Your task to perform on an android device: Go to calendar. Show me events next week Image 0: 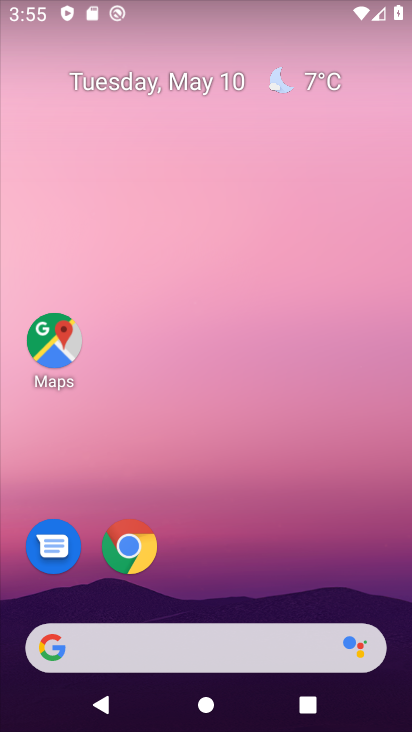
Step 0: click (274, 686)
Your task to perform on an android device: Go to calendar. Show me events next week Image 1: 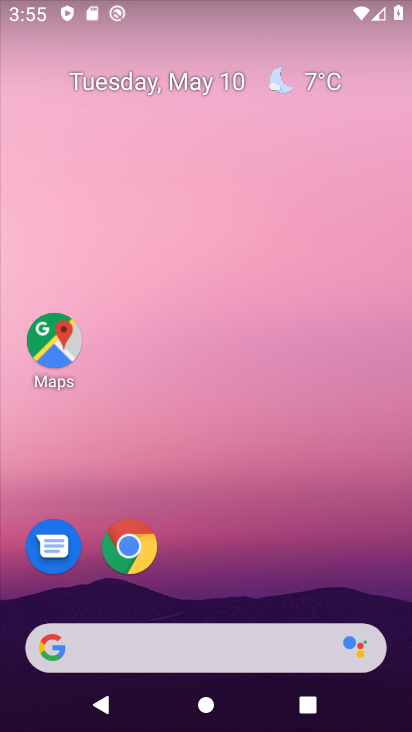
Step 1: drag from (238, 377) to (200, 146)
Your task to perform on an android device: Go to calendar. Show me events next week Image 2: 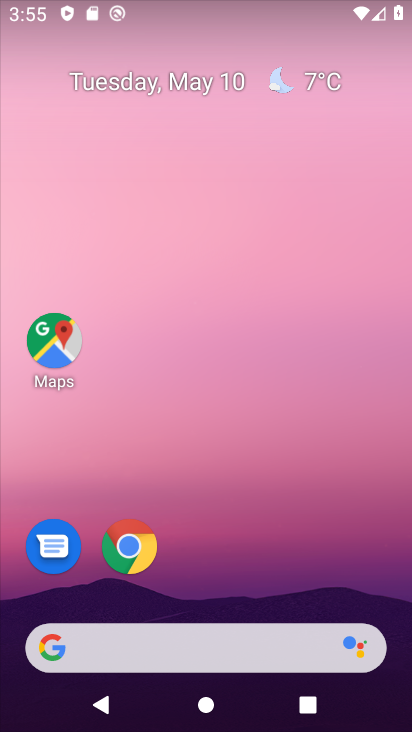
Step 2: drag from (310, 543) to (167, 0)
Your task to perform on an android device: Go to calendar. Show me events next week Image 3: 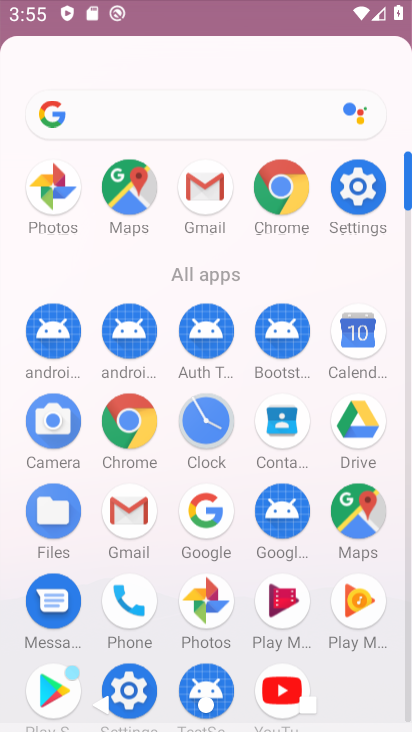
Step 3: drag from (280, 327) to (182, 0)
Your task to perform on an android device: Go to calendar. Show me events next week Image 4: 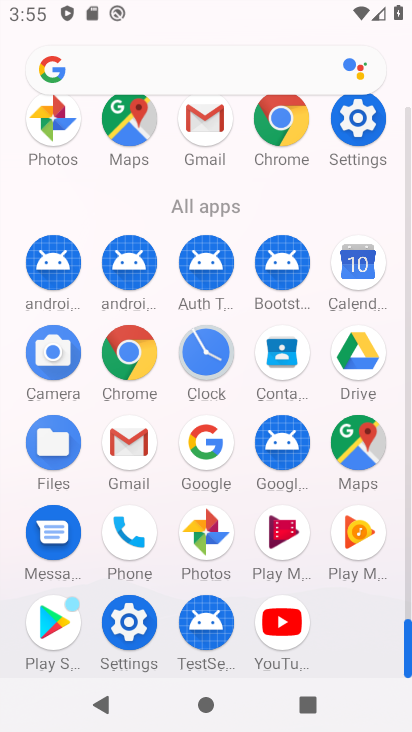
Step 4: click (360, 269)
Your task to perform on an android device: Go to calendar. Show me events next week Image 5: 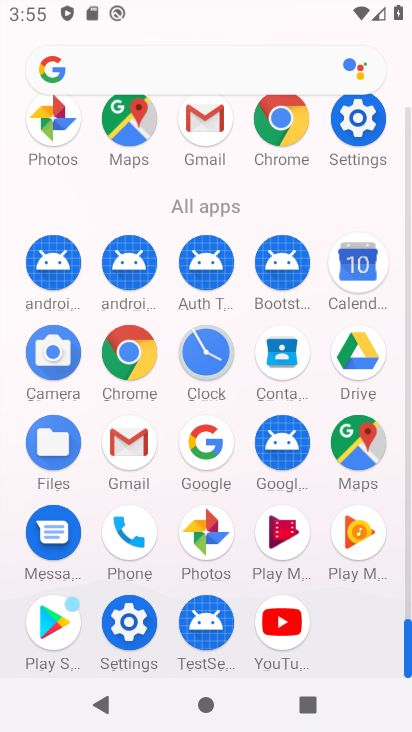
Step 5: click (361, 270)
Your task to perform on an android device: Go to calendar. Show me events next week Image 6: 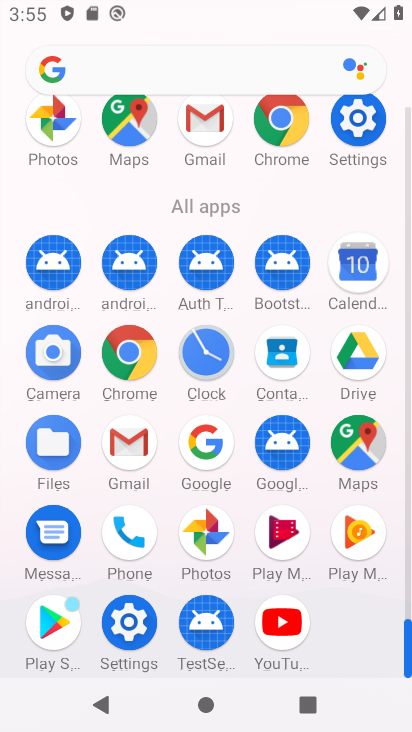
Step 6: click (361, 270)
Your task to perform on an android device: Go to calendar. Show me events next week Image 7: 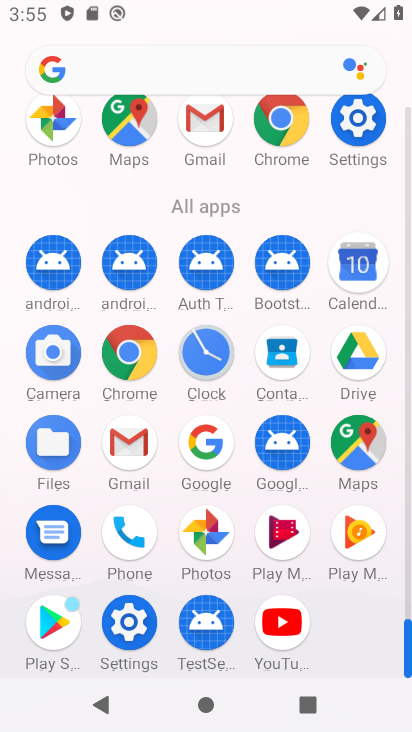
Step 7: click (361, 270)
Your task to perform on an android device: Go to calendar. Show me events next week Image 8: 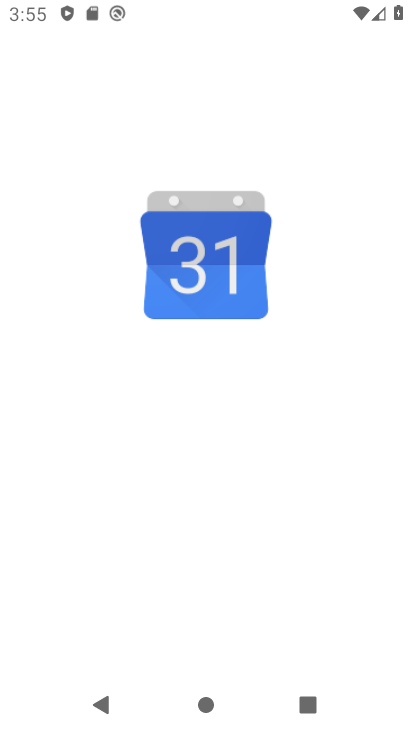
Step 8: click (361, 270)
Your task to perform on an android device: Go to calendar. Show me events next week Image 9: 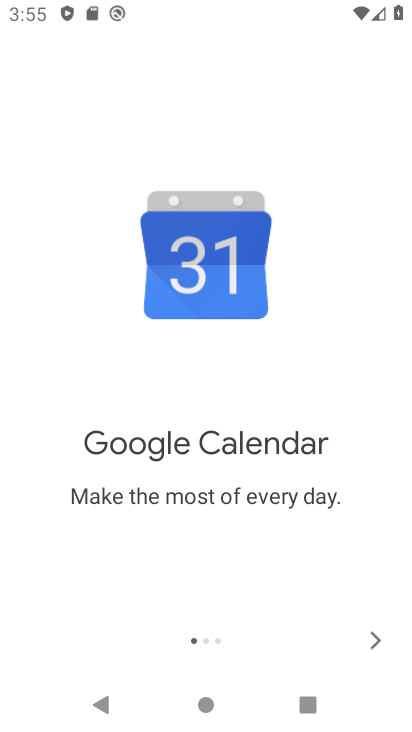
Step 9: click (384, 633)
Your task to perform on an android device: Go to calendar. Show me events next week Image 10: 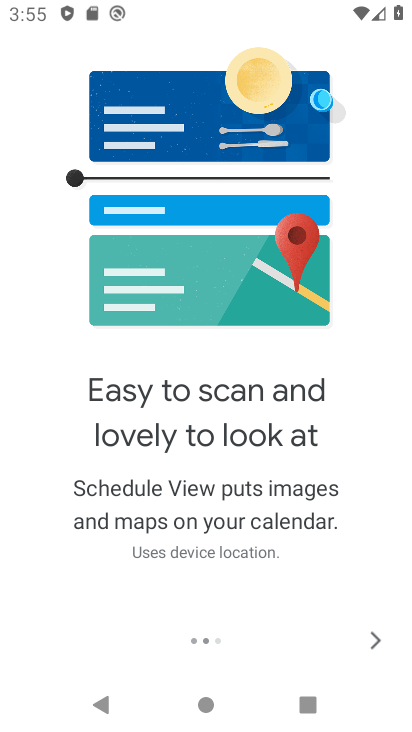
Step 10: click (377, 646)
Your task to perform on an android device: Go to calendar. Show me events next week Image 11: 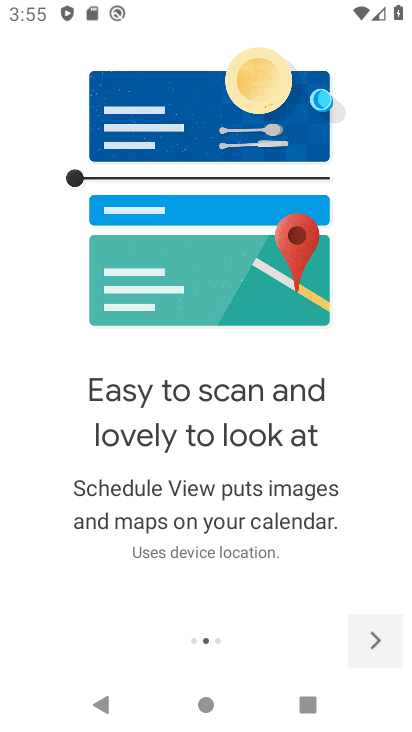
Step 11: click (375, 648)
Your task to perform on an android device: Go to calendar. Show me events next week Image 12: 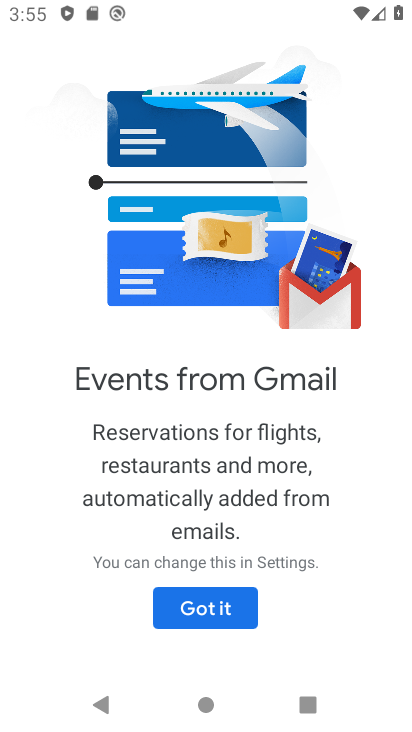
Step 12: click (192, 602)
Your task to perform on an android device: Go to calendar. Show me events next week Image 13: 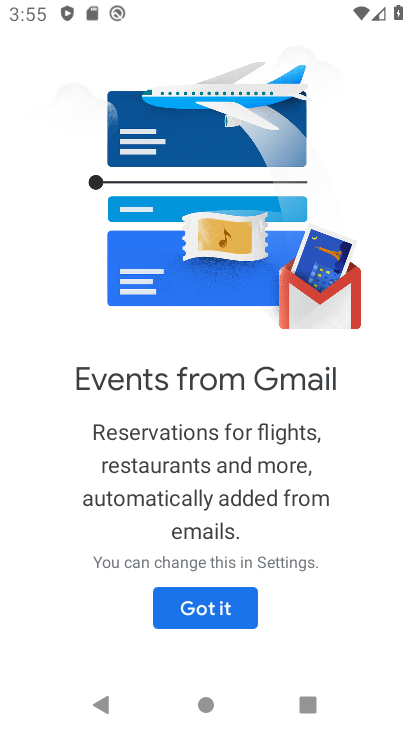
Step 13: click (193, 602)
Your task to perform on an android device: Go to calendar. Show me events next week Image 14: 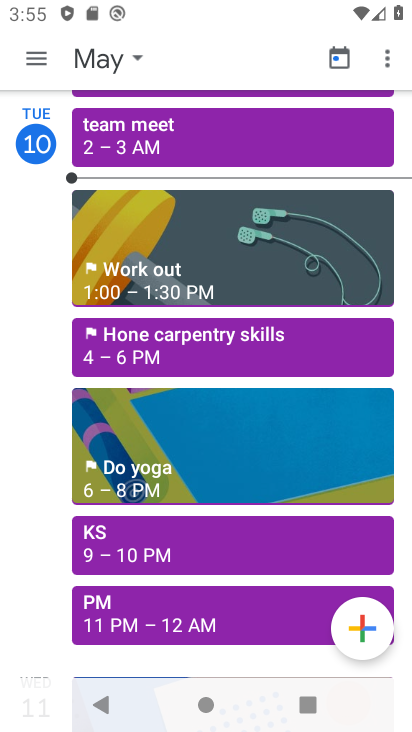
Step 14: drag from (165, 418) to (121, 16)
Your task to perform on an android device: Go to calendar. Show me events next week Image 15: 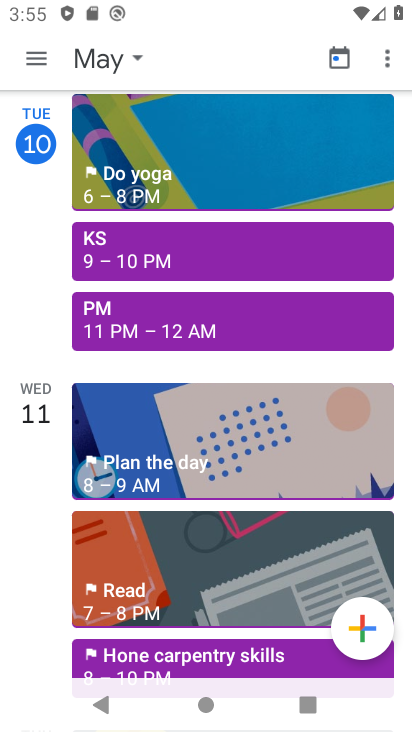
Step 15: drag from (111, 308) to (64, 111)
Your task to perform on an android device: Go to calendar. Show me events next week Image 16: 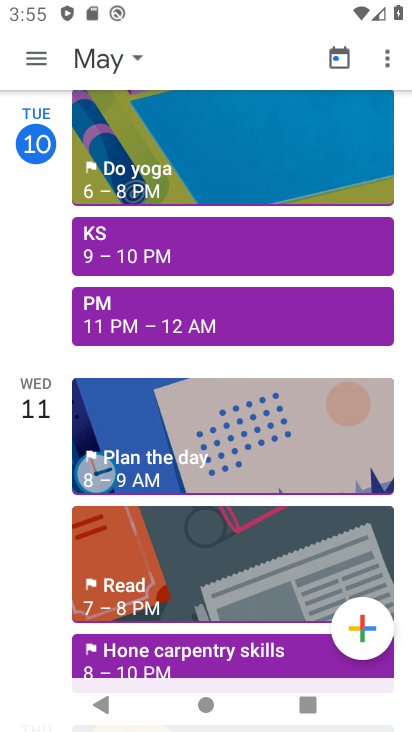
Step 16: click (88, 423)
Your task to perform on an android device: Go to calendar. Show me events next week Image 17: 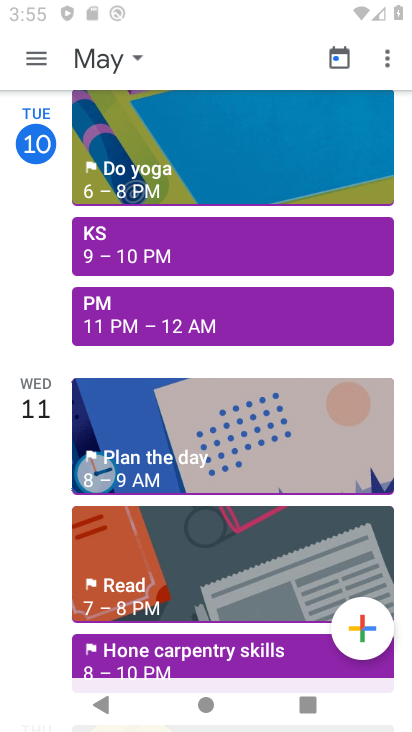
Step 17: click (88, 423)
Your task to perform on an android device: Go to calendar. Show me events next week Image 18: 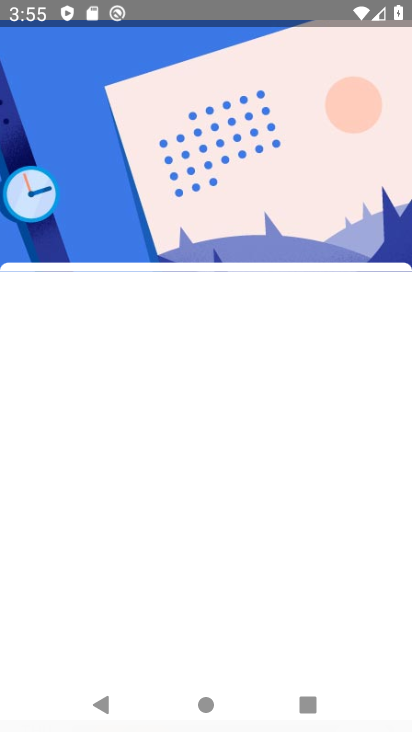
Step 18: click (88, 423)
Your task to perform on an android device: Go to calendar. Show me events next week Image 19: 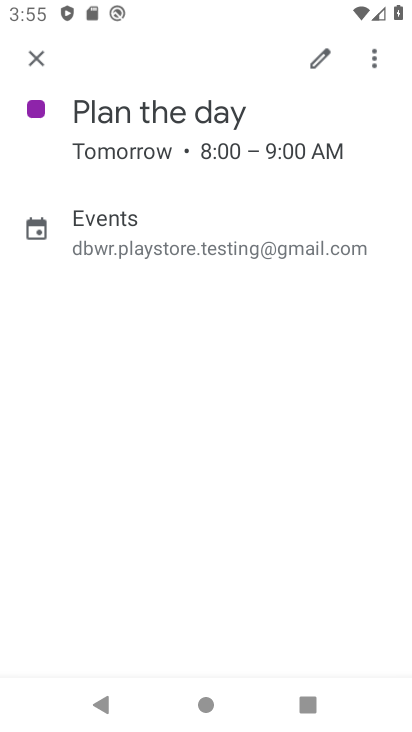
Step 19: click (36, 54)
Your task to perform on an android device: Go to calendar. Show me events next week Image 20: 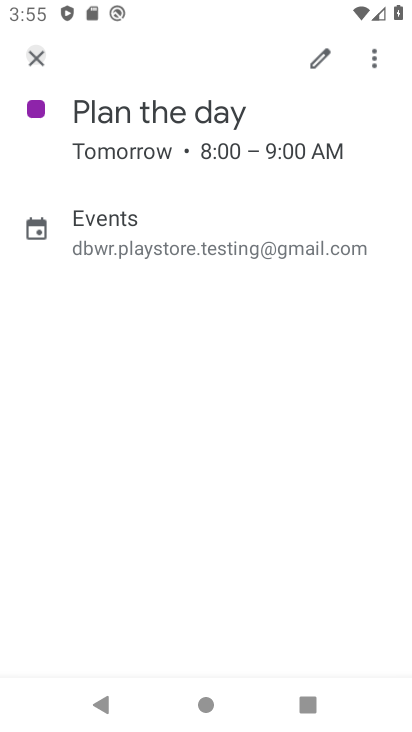
Step 20: click (36, 54)
Your task to perform on an android device: Go to calendar. Show me events next week Image 21: 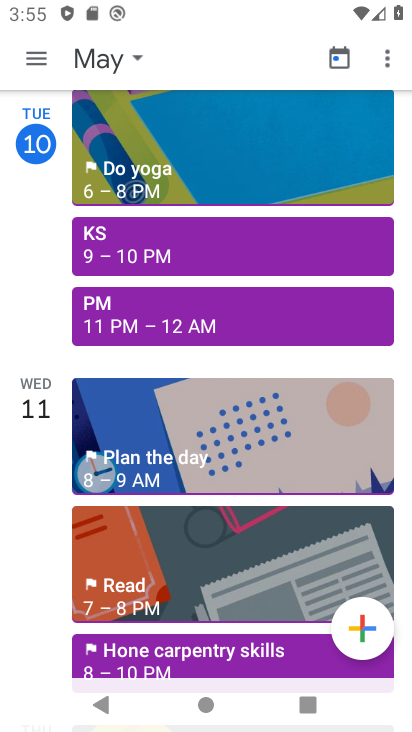
Step 21: drag from (206, 446) to (206, 179)
Your task to perform on an android device: Go to calendar. Show me events next week Image 22: 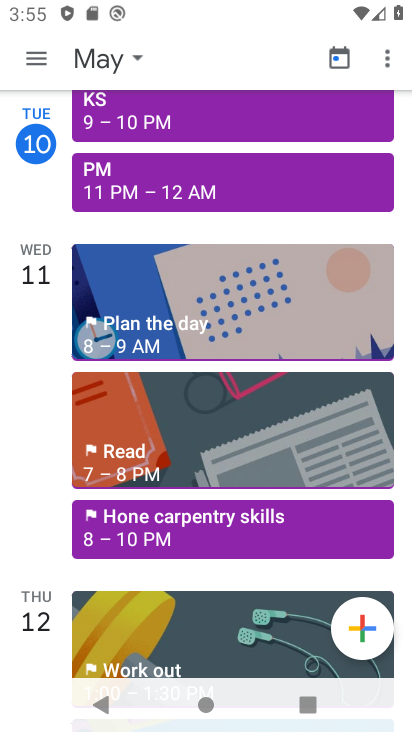
Step 22: drag from (204, 525) to (200, 37)
Your task to perform on an android device: Go to calendar. Show me events next week Image 23: 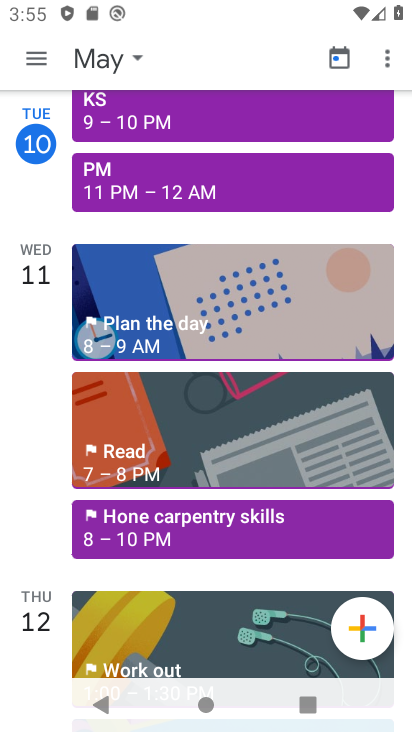
Step 23: drag from (185, 362) to (48, 13)
Your task to perform on an android device: Go to calendar. Show me events next week Image 24: 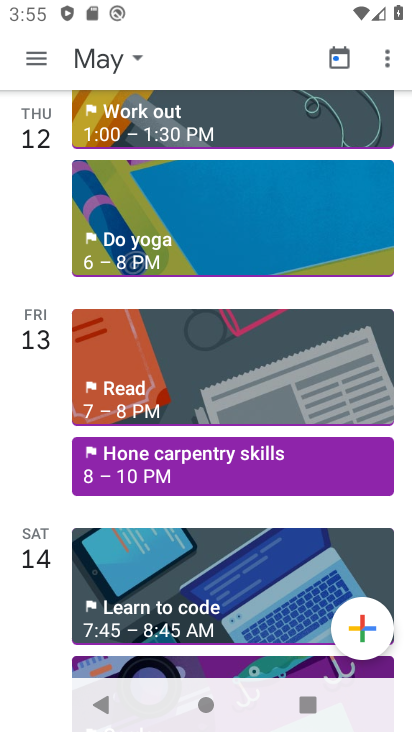
Step 24: click (115, 368)
Your task to perform on an android device: Go to calendar. Show me events next week Image 25: 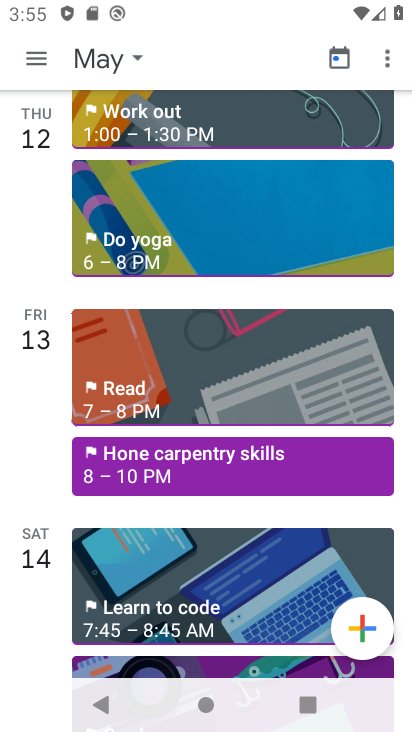
Step 25: click (115, 368)
Your task to perform on an android device: Go to calendar. Show me events next week Image 26: 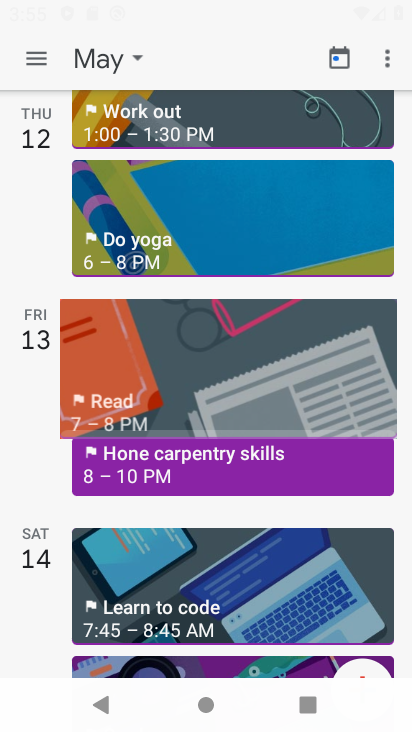
Step 26: click (115, 368)
Your task to perform on an android device: Go to calendar. Show me events next week Image 27: 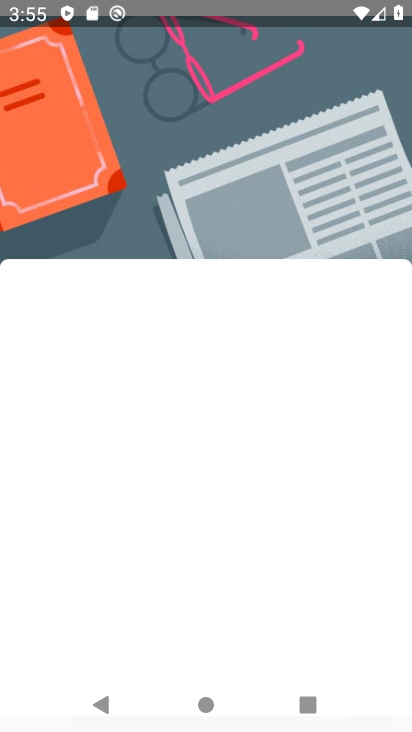
Step 27: click (126, 382)
Your task to perform on an android device: Go to calendar. Show me events next week Image 28: 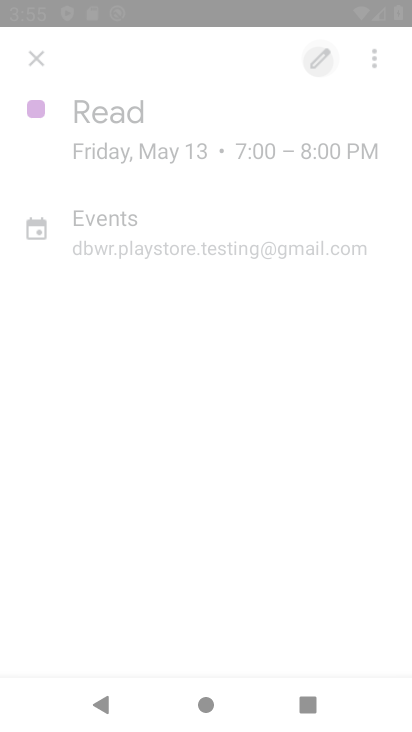
Step 28: click (134, 387)
Your task to perform on an android device: Go to calendar. Show me events next week Image 29: 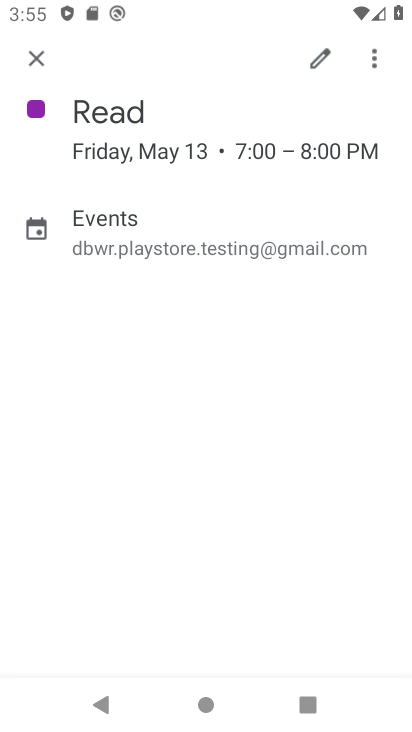
Step 29: click (35, 60)
Your task to perform on an android device: Go to calendar. Show me events next week Image 30: 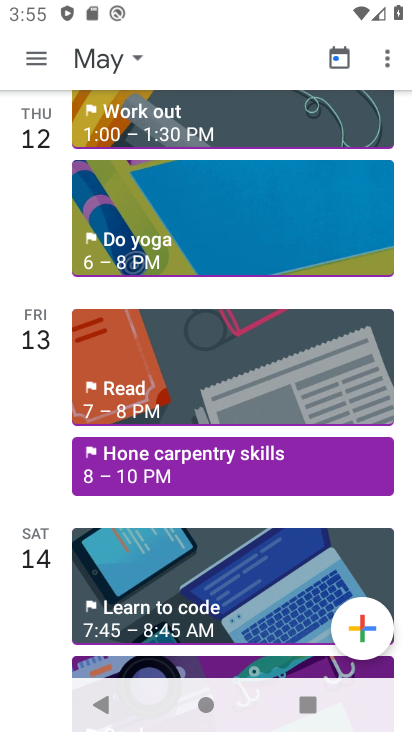
Step 30: task complete